Your task to perform on an android device: manage bookmarks in the chrome app Image 0: 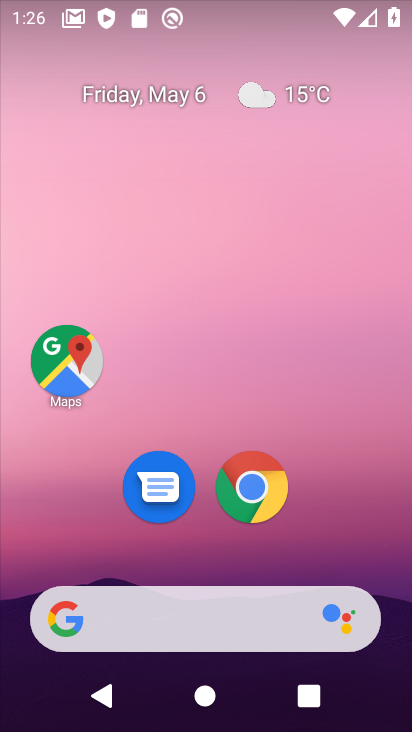
Step 0: click (255, 485)
Your task to perform on an android device: manage bookmarks in the chrome app Image 1: 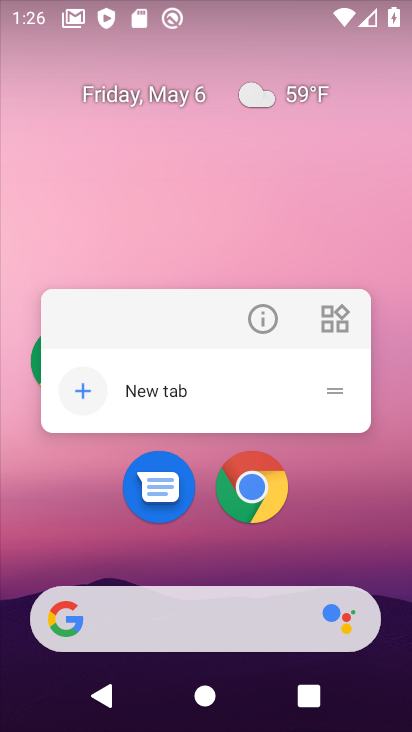
Step 1: click (249, 509)
Your task to perform on an android device: manage bookmarks in the chrome app Image 2: 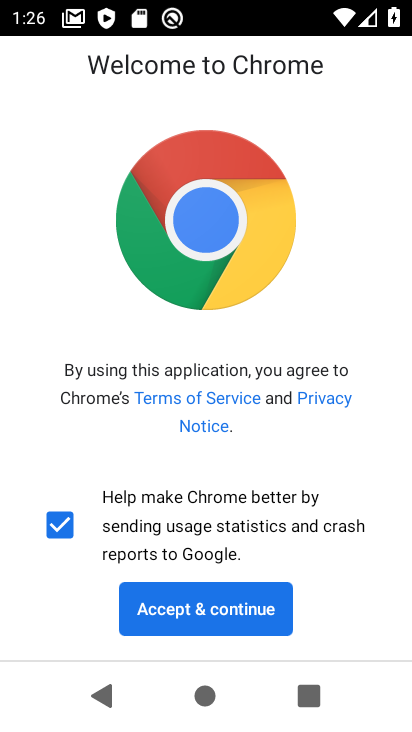
Step 2: click (180, 619)
Your task to perform on an android device: manage bookmarks in the chrome app Image 3: 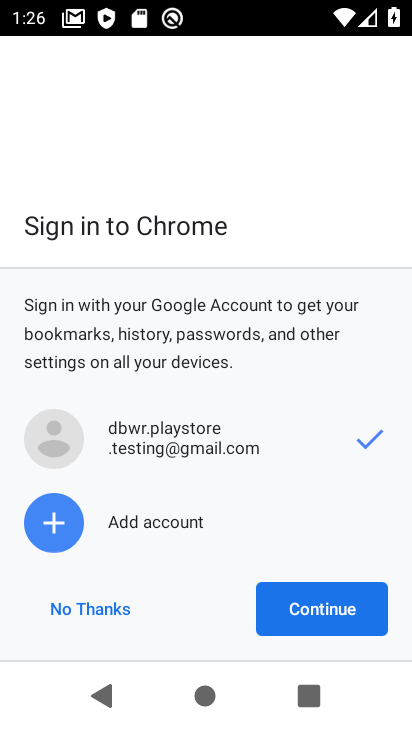
Step 3: click (361, 608)
Your task to perform on an android device: manage bookmarks in the chrome app Image 4: 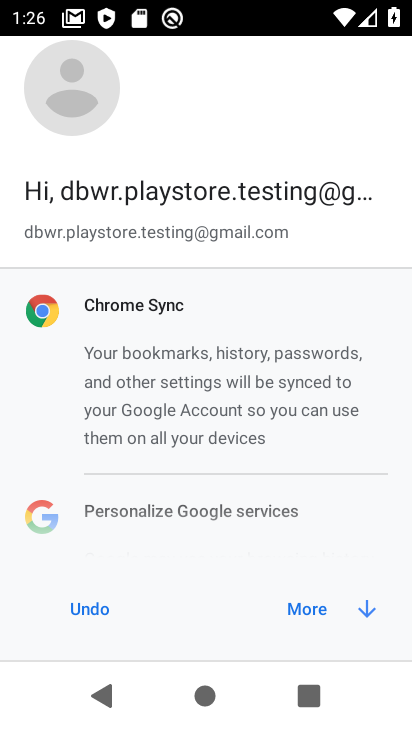
Step 4: click (340, 610)
Your task to perform on an android device: manage bookmarks in the chrome app Image 5: 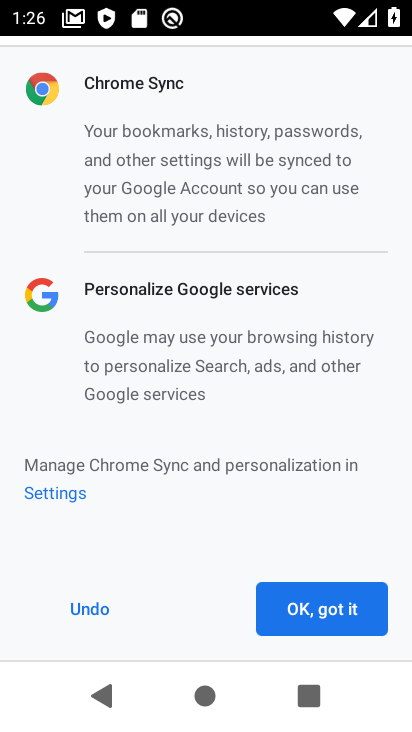
Step 5: click (340, 611)
Your task to perform on an android device: manage bookmarks in the chrome app Image 6: 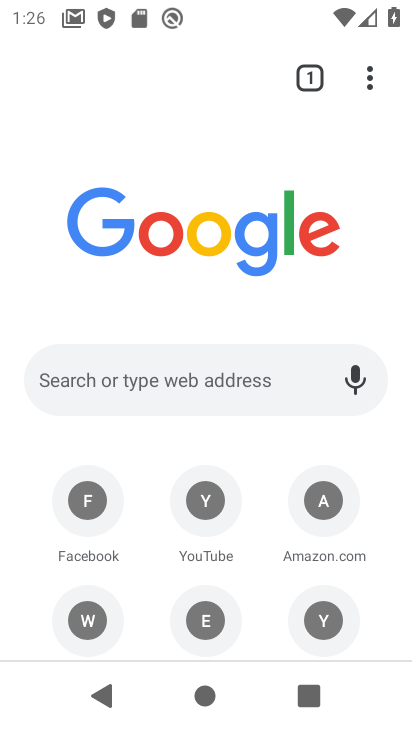
Step 6: drag from (377, 76) to (317, 265)
Your task to perform on an android device: manage bookmarks in the chrome app Image 7: 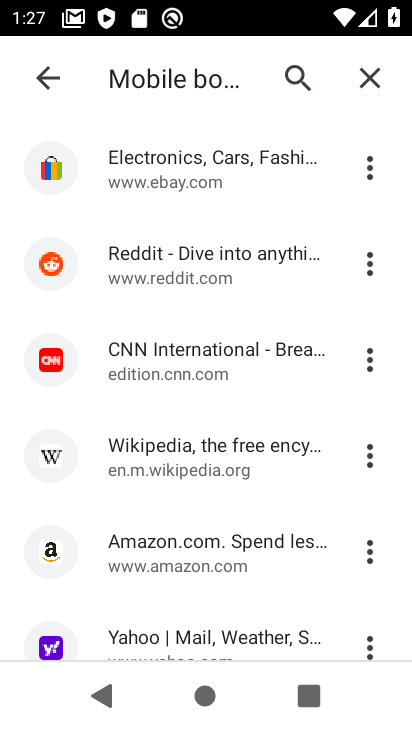
Step 7: drag from (113, 584) to (182, 334)
Your task to perform on an android device: manage bookmarks in the chrome app Image 8: 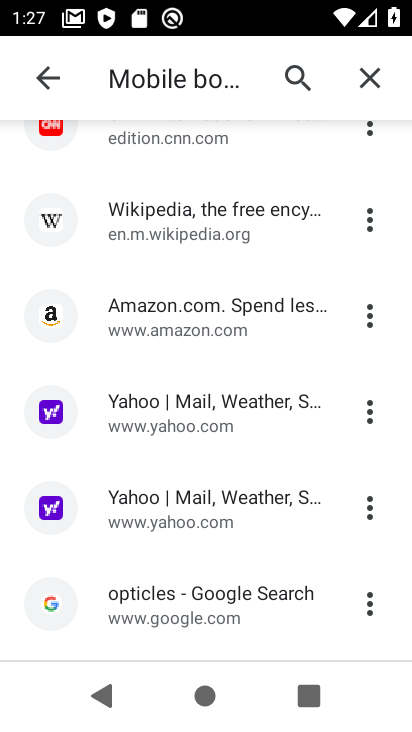
Step 8: drag from (228, 221) to (215, 574)
Your task to perform on an android device: manage bookmarks in the chrome app Image 9: 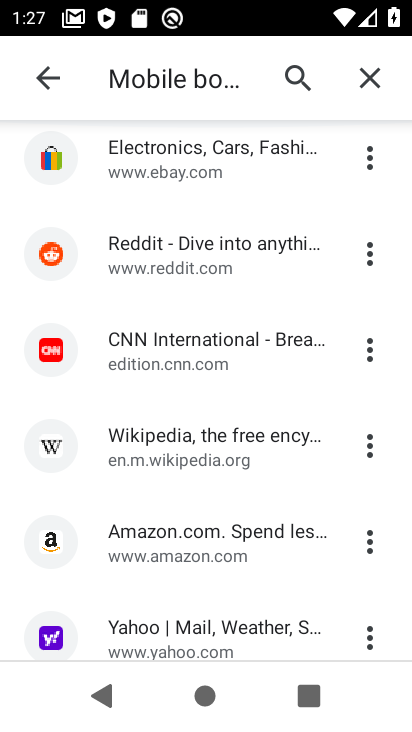
Step 9: click (212, 188)
Your task to perform on an android device: manage bookmarks in the chrome app Image 10: 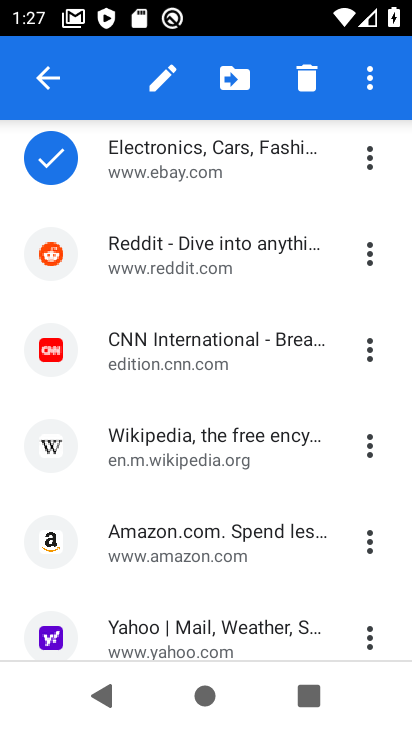
Step 10: click (208, 279)
Your task to perform on an android device: manage bookmarks in the chrome app Image 11: 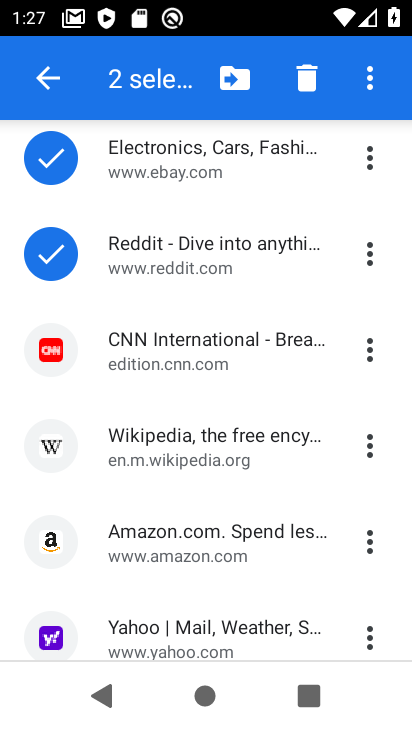
Step 11: click (207, 350)
Your task to perform on an android device: manage bookmarks in the chrome app Image 12: 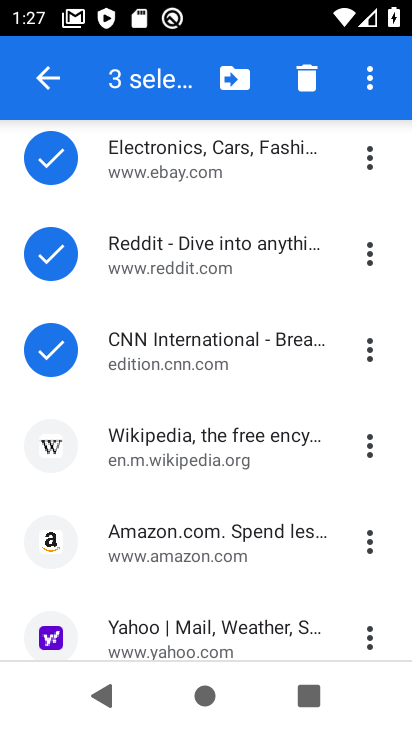
Step 12: click (189, 464)
Your task to perform on an android device: manage bookmarks in the chrome app Image 13: 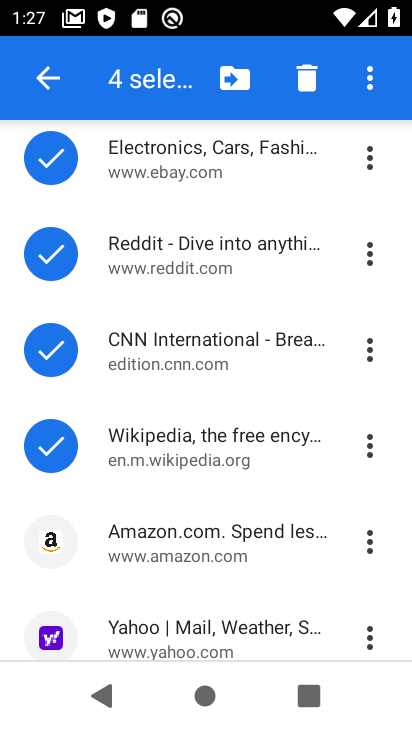
Step 13: click (188, 535)
Your task to perform on an android device: manage bookmarks in the chrome app Image 14: 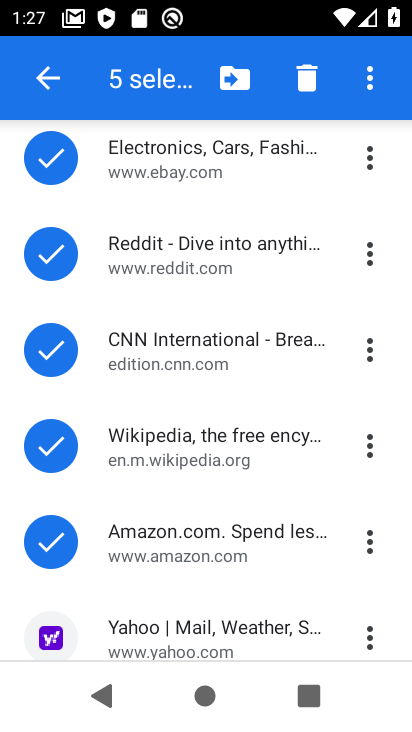
Step 14: drag from (148, 607) to (204, 309)
Your task to perform on an android device: manage bookmarks in the chrome app Image 15: 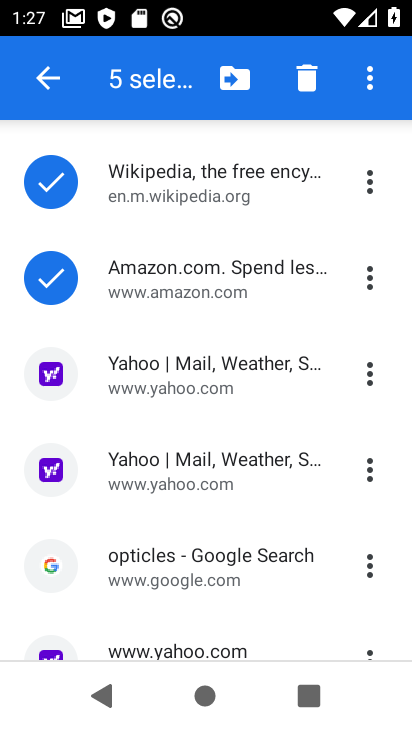
Step 15: click (183, 380)
Your task to perform on an android device: manage bookmarks in the chrome app Image 16: 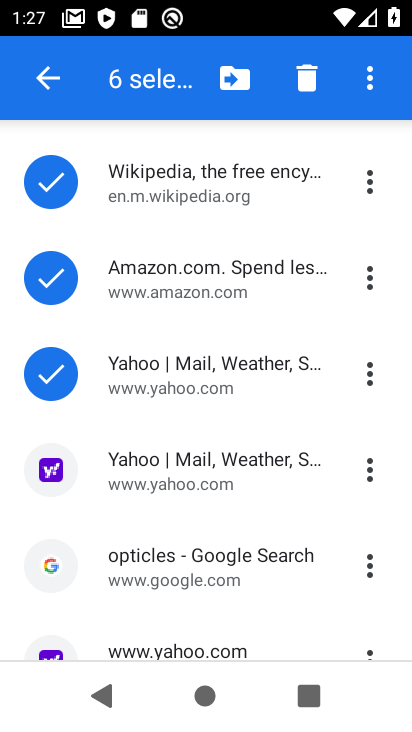
Step 16: click (167, 461)
Your task to perform on an android device: manage bookmarks in the chrome app Image 17: 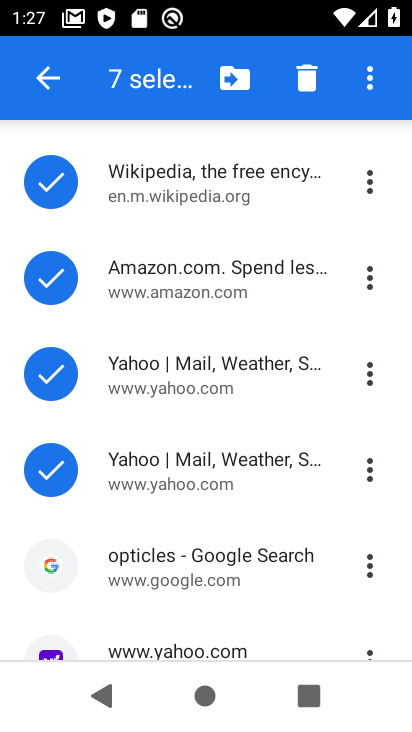
Step 17: click (166, 562)
Your task to perform on an android device: manage bookmarks in the chrome app Image 18: 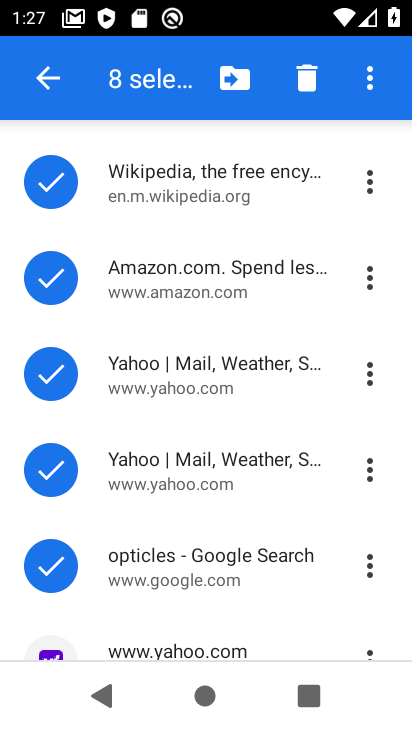
Step 18: drag from (164, 631) to (219, 213)
Your task to perform on an android device: manage bookmarks in the chrome app Image 19: 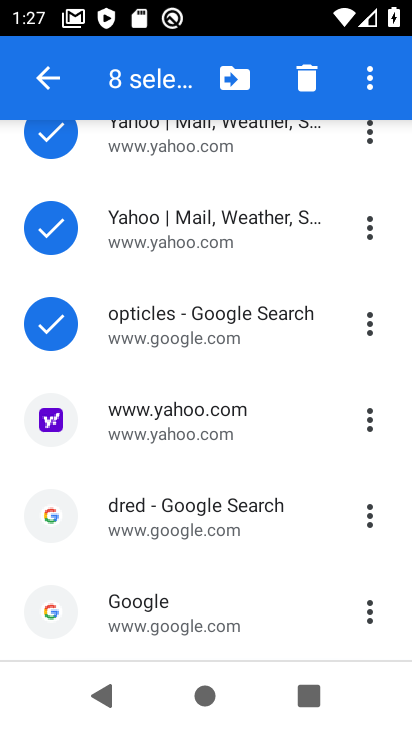
Step 19: click (133, 427)
Your task to perform on an android device: manage bookmarks in the chrome app Image 20: 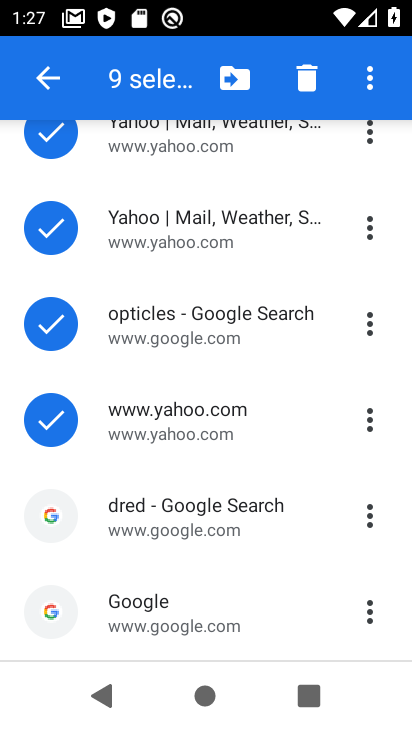
Step 20: click (140, 529)
Your task to perform on an android device: manage bookmarks in the chrome app Image 21: 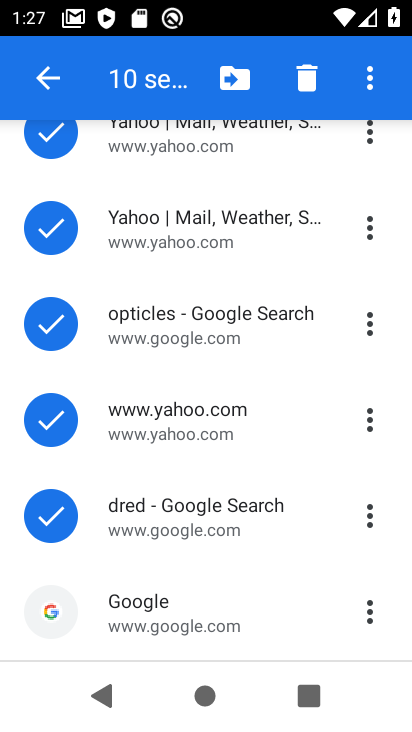
Step 21: click (138, 601)
Your task to perform on an android device: manage bookmarks in the chrome app Image 22: 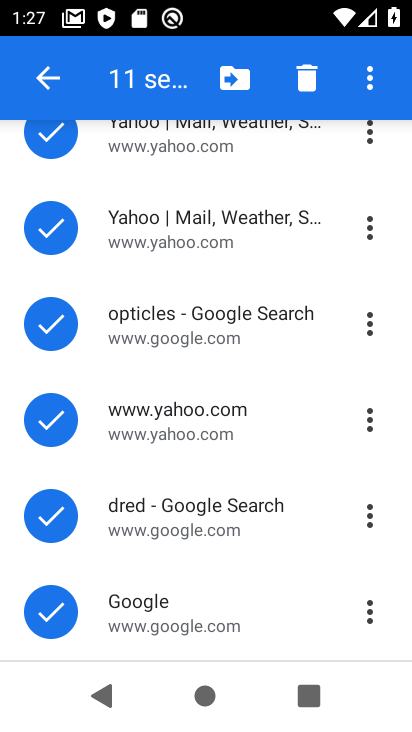
Step 22: click (240, 83)
Your task to perform on an android device: manage bookmarks in the chrome app Image 23: 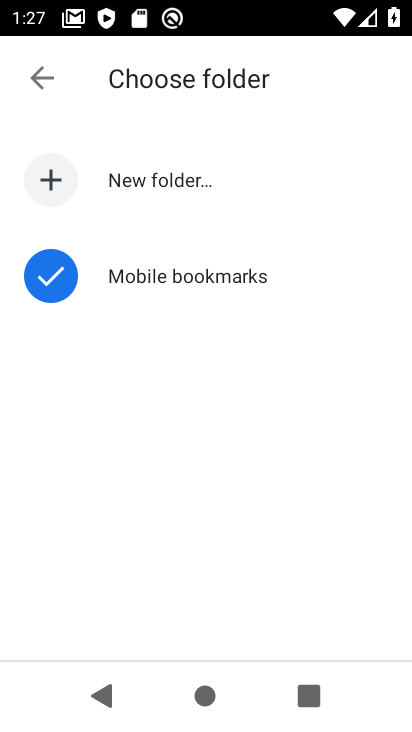
Step 23: click (221, 276)
Your task to perform on an android device: manage bookmarks in the chrome app Image 24: 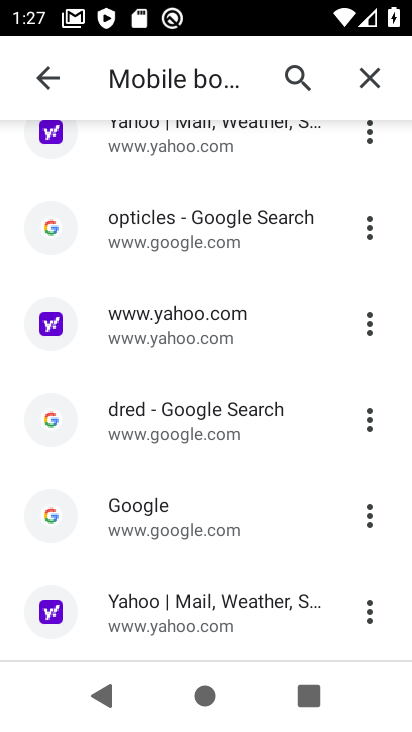
Step 24: click (206, 605)
Your task to perform on an android device: manage bookmarks in the chrome app Image 25: 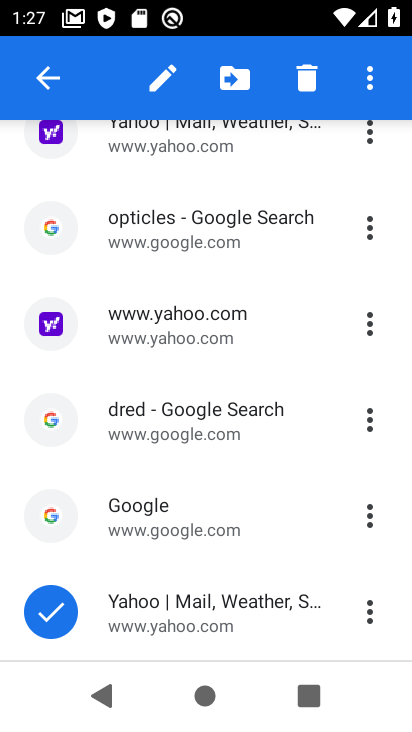
Step 25: task complete